Your task to perform on an android device: Show me productivity apps on the Play Store Image 0: 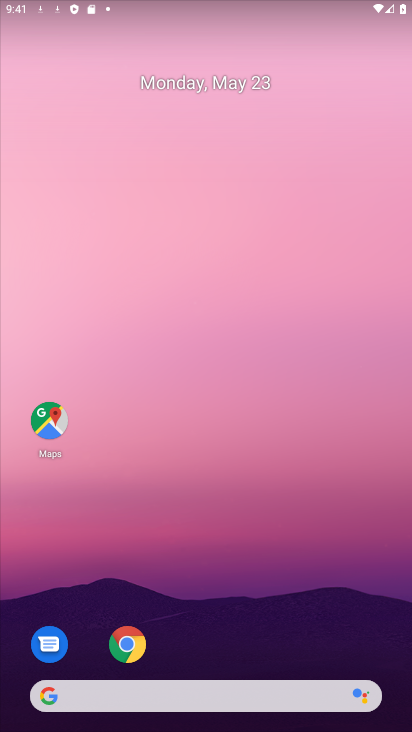
Step 0: drag from (264, 722) to (237, 201)
Your task to perform on an android device: Show me productivity apps on the Play Store Image 1: 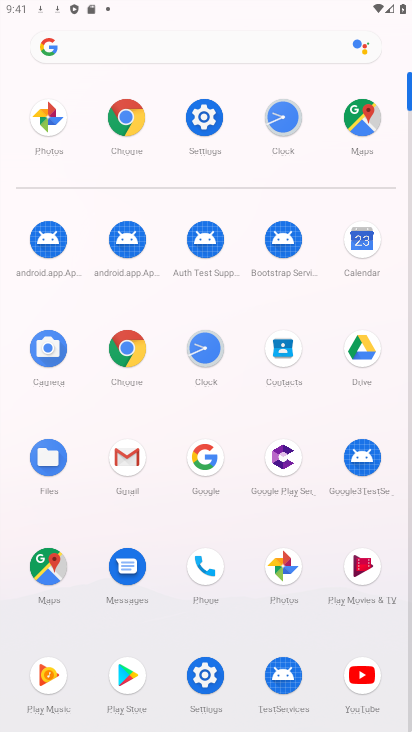
Step 1: click (125, 690)
Your task to perform on an android device: Show me productivity apps on the Play Store Image 2: 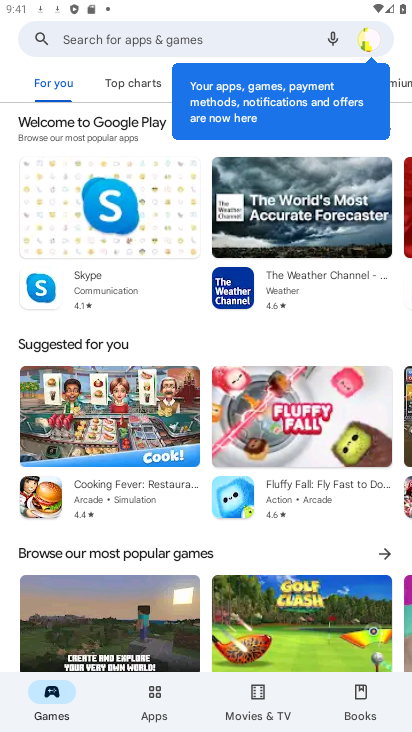
Step 2: click (132, 41)
Your task to perform on an android device: Show me productivity apps on the Play Store Image 3: 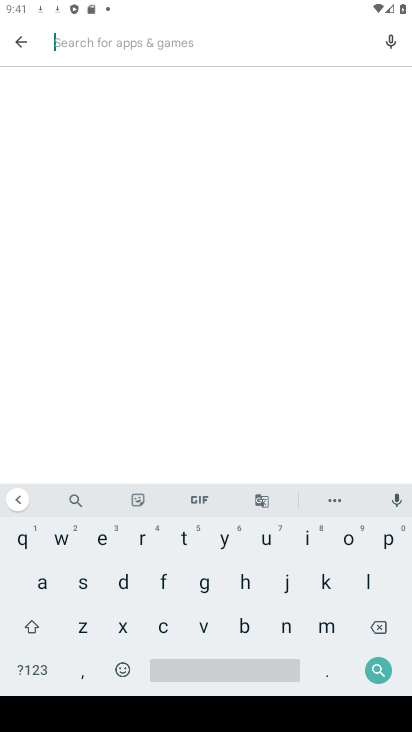
Step 3: click (383, 544)
Your task to perform on an android device: Show me productivity apps on the Play Store Image 4: 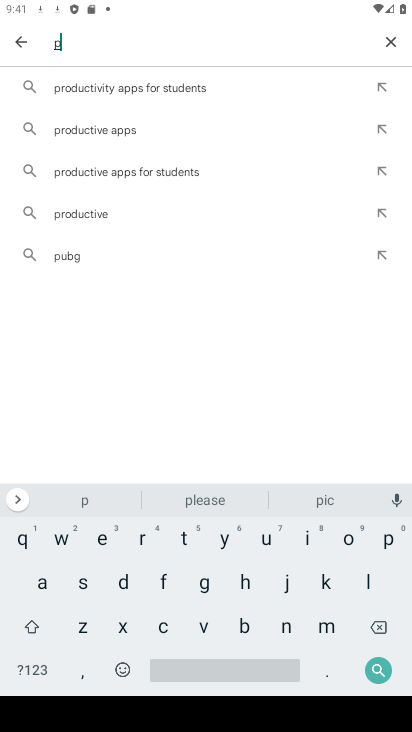
Step 4: click (137, 534)
Your task to perform on an android device: Show me productivity apps on the Play Store Image 5: 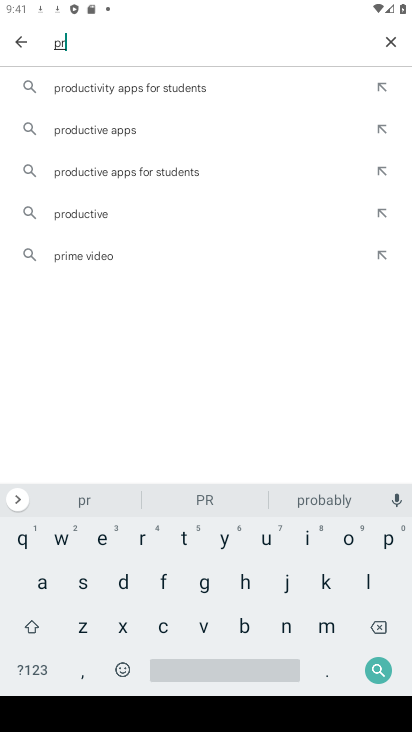
Step 5: click (110, 129)
Your task to perform on an android device: Show me productivity apps on the Play Store Image 6: 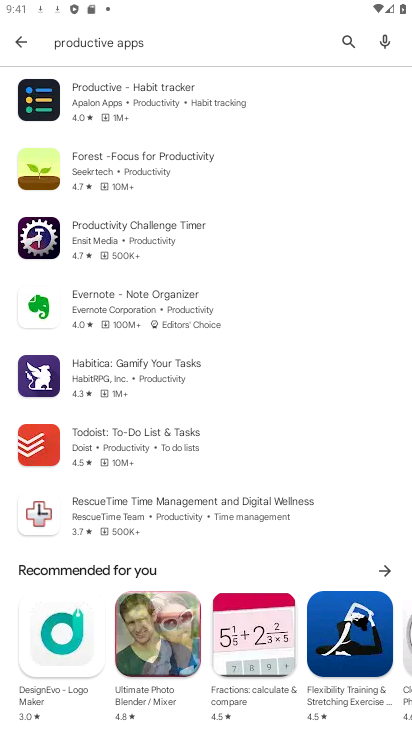
Step 6: click (110, 51)
Your task to perform on an android device: Show me productivity apps on the Play Store Image 7: 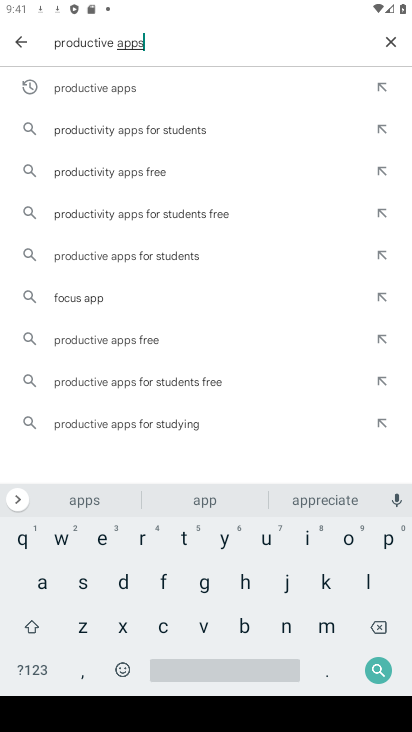
Step 7: click (114, 171)
Your task to perform on an android device: Show me productivity apps on the Play Store Image 8: 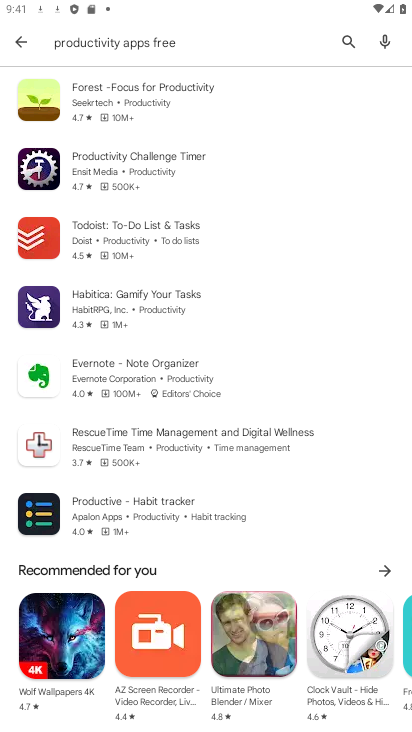
Step 8: task complete